Your task to perform on an android device: Open Maps and search for coffee Image 0: 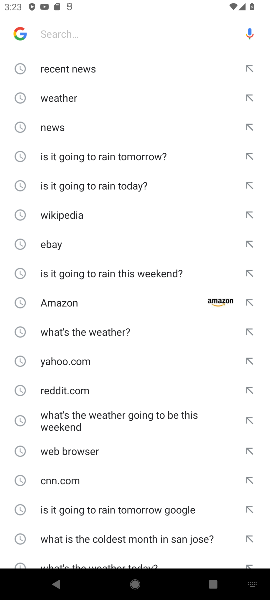
Step 0: press home button
Your task to perform on an android device: Open Maps and search for coffee Image 1: 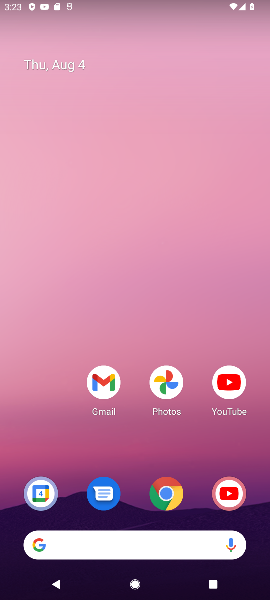
Step 1: click (158, 233)
Your task to perform on an android device: Open Maps and search for coffee Image 2: 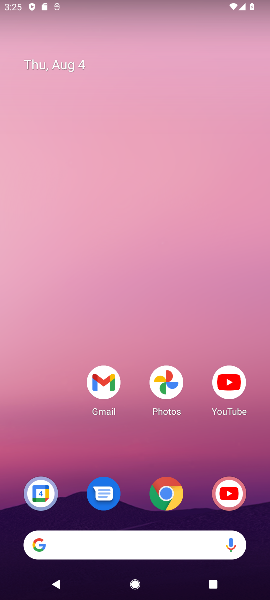
Step 2: drag from (99, 512) to (186, 145)
Your task to perform on an android device: Open Maps and search for coffee Image 3: 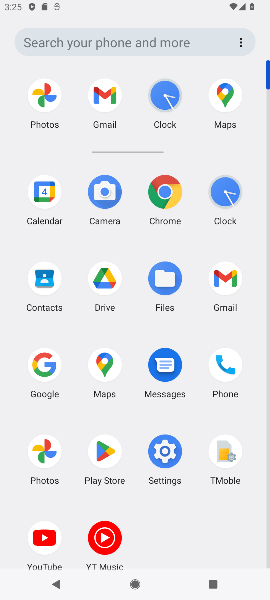
Step 3: click (111, 349)
Your task to perform on an android device: Open Maps and search for coffee Image 4: 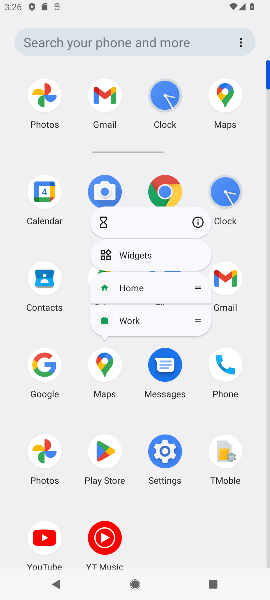
Step 4: click (103, 370)
Your task to perform on an android device: Open Maps and search for coffee Image 5: 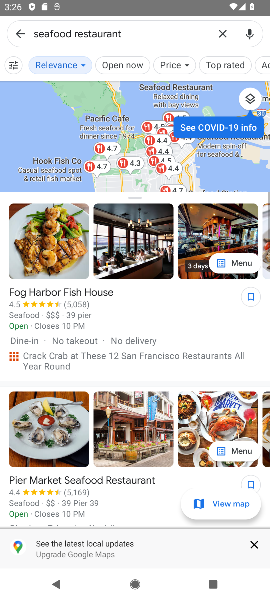
Step 5: click (136, 22)
Your task to perform on an android device: Open Maps and search for coffee Image 6: 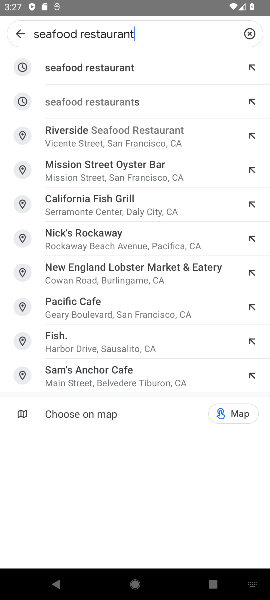
Step 6: click (152, 35)
Your task to perform on an android device: Open Maps and search for coffee Image 7: 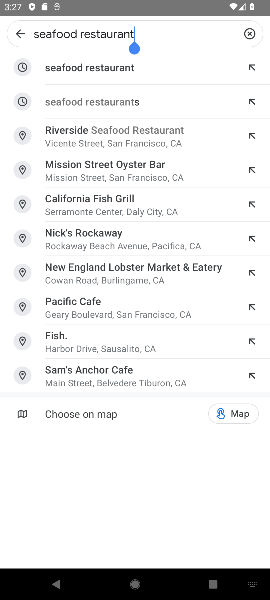
Step 7: click (251, 34)
Your task to perform on an android device: Open Maps and search for coffee Image 8: 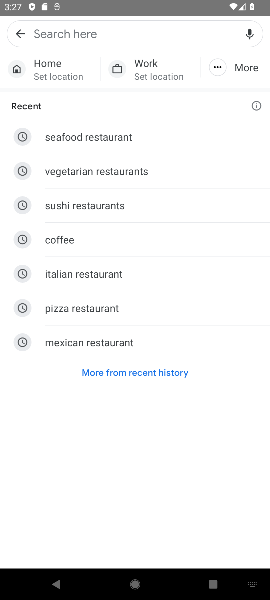
Step 8: click (90, 242)
Your task to perform on an android device: Open Maps and search for coffee Image 9: 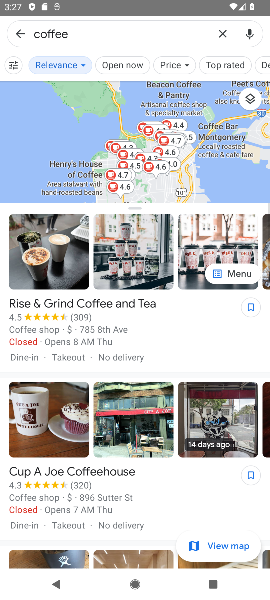
Step 9: task complete